Your task to perform on an android device: clear history in the chrome app Image 0: 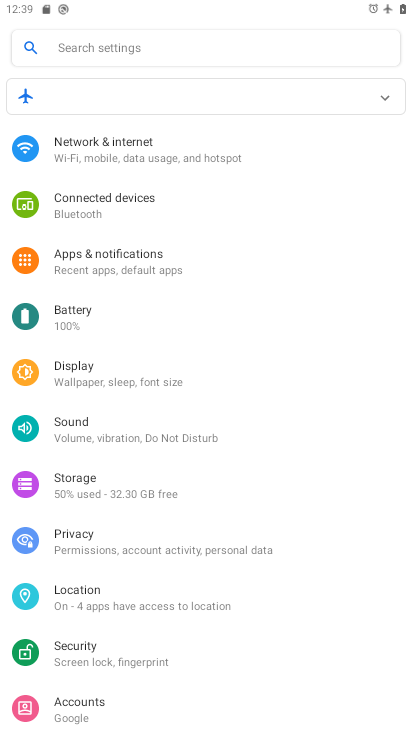
Step 0: press home button
Your task to perform on an android device: clear history in the chrome app Image 1: 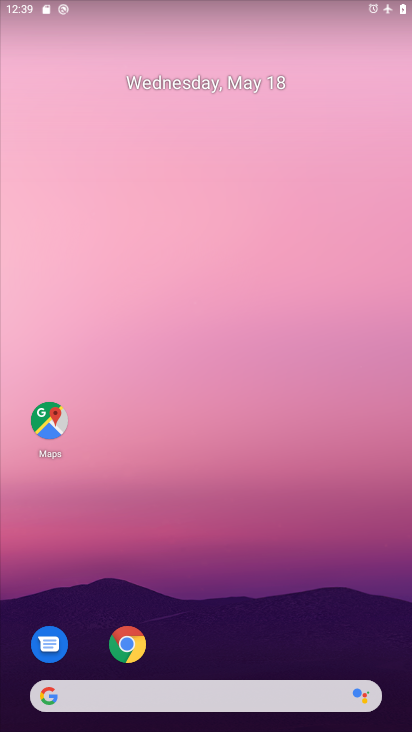
Step 1: click (122, 639)
Your task to perform on an android device: clear history in the chrome app Image 2: 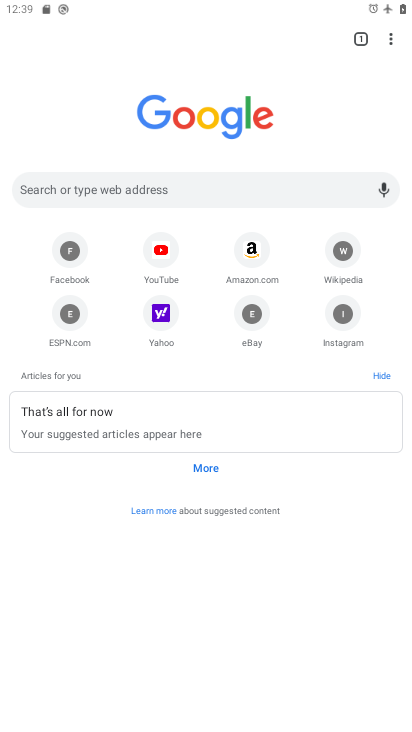
Step 2: click (391, 32)
Your task to perform on an android device: clear history in the chrome app Image 3: 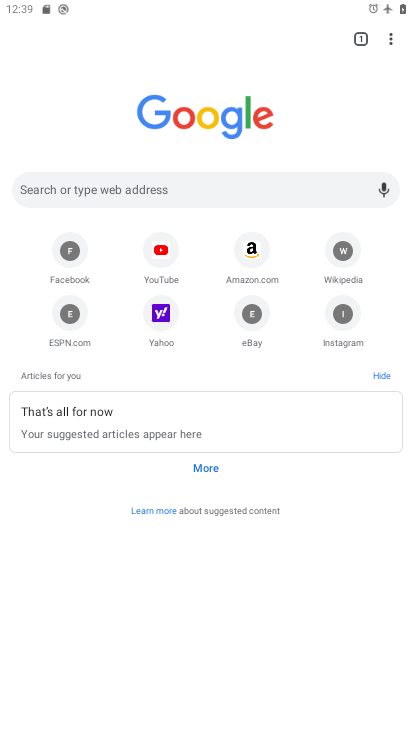
Step 3: click (390, 36)
Your task to perform on an android device: clear history in the chrome app Image 4: 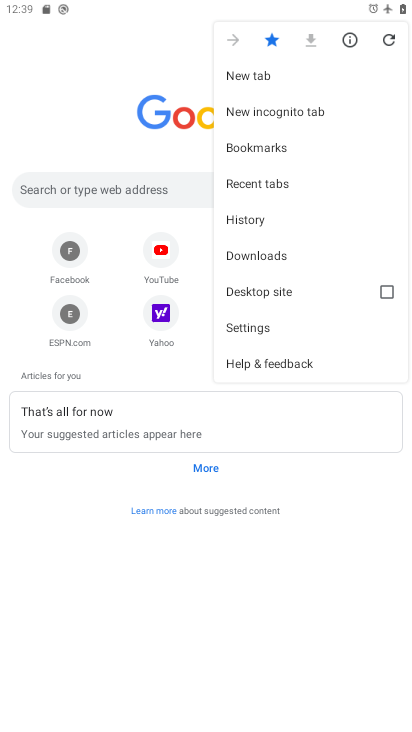
Step 4: click (273, 221)
Your task to perform on an android device: clear history in the chrome app Image 5: 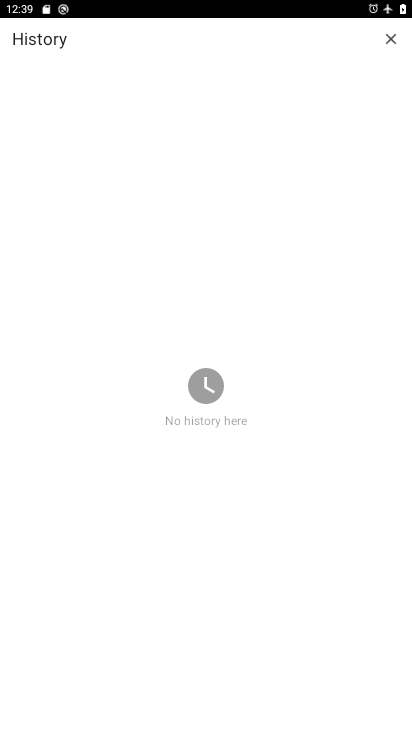
Step 5: task complete